Your task to perform on an android device: Search for pizza restaurants on Maps Image 0: 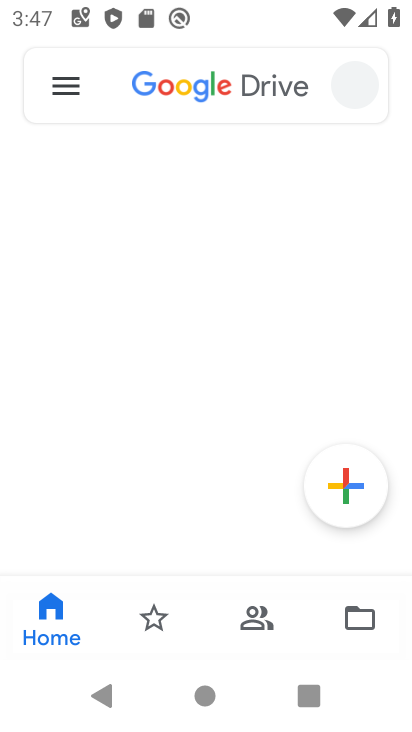
Step 0: drag from (177, 565) to (171, 141)
Your task to perform on an android device: Search for pizza restaurants on Maps Image 1: 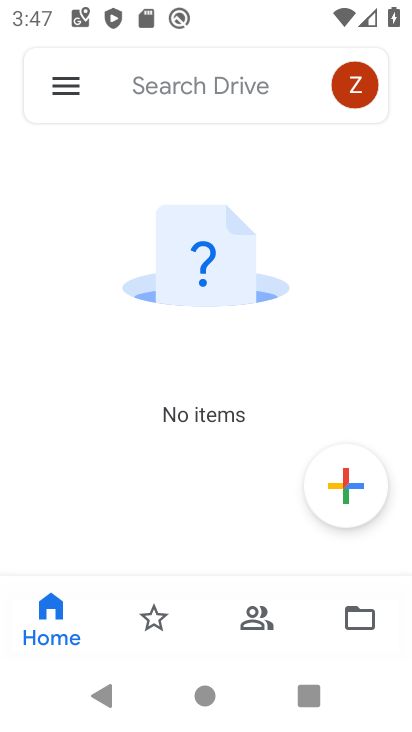
Step 1: press home button
Your task to perform on an android device: Search for pizza restaurants on Maps Image 2: 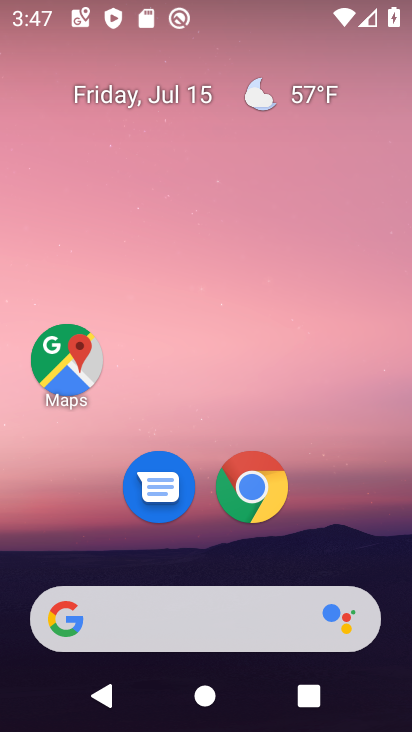
Step 2: drag from (211, 613) to (196, 116)
Your task to perform on an android device: Search for pizza restaurants on Maps Image 3: 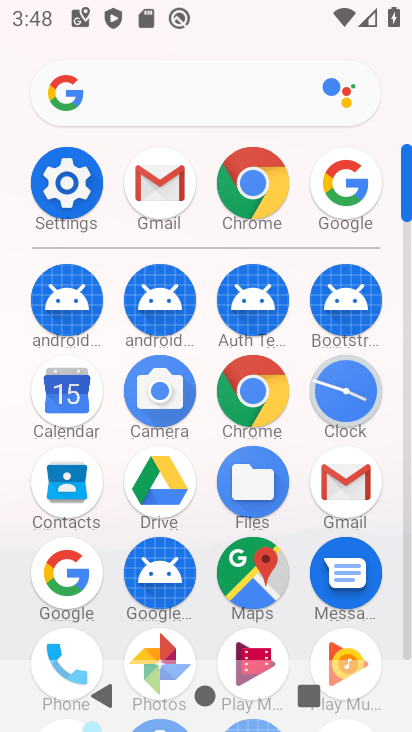
Step 3: click (247, 593)
Your task to perform on an android device: Search for pizza restaurants on Maps Image 4: 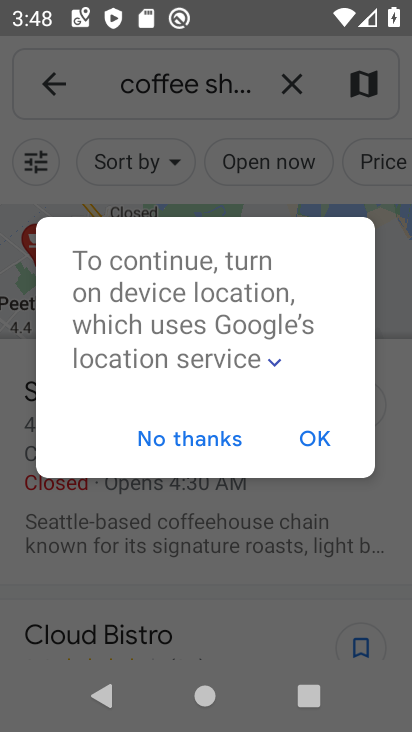
Step 4: click (303, 443)
Your task to perform on an android device: Search for pizza restaurants on Maps Image 5: 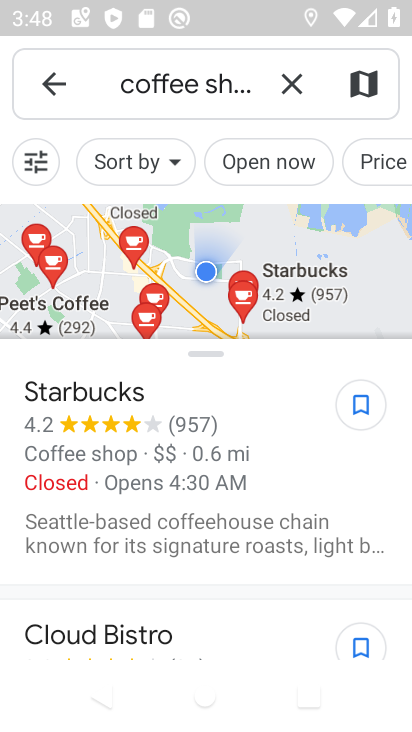
Step 5: click (279, 93)
Your task to perform on an android device: Search for pizza restaurants on Maps Image 6: 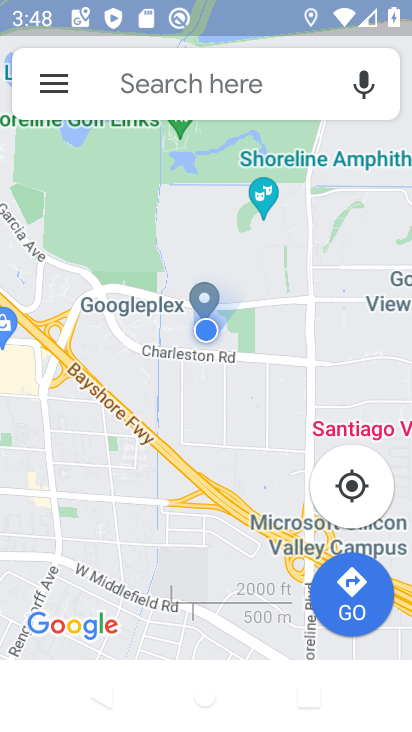
Step 6: click (241, 84)
Your task to perform on an android device: Search for pizza restaurants on Maps Image 7: 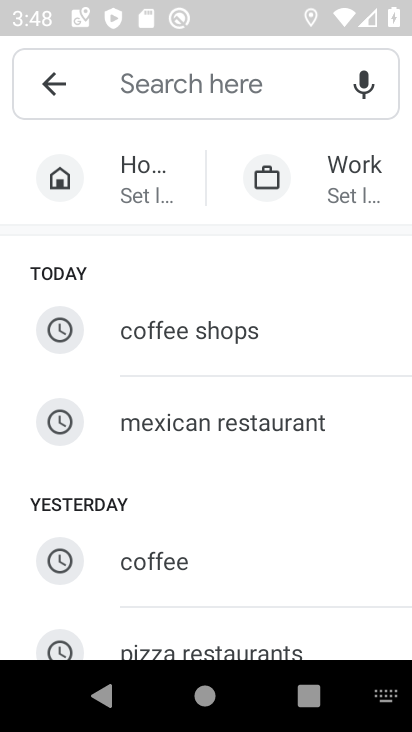
Step 7: click (297, 632)
Your task to perform on an android device: Search for pizza restaurants on Maps Image 8: 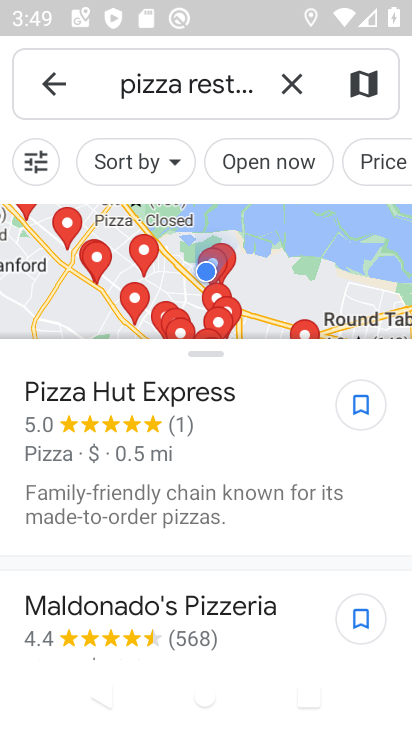
Step 8: task complete